Your task to perform on an android device: show emergency info Image 0: 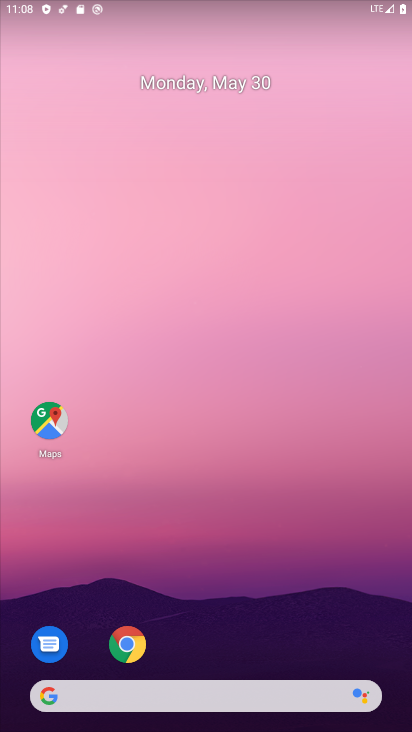
Step 0: drag from (328, 621) to (343, 77)
Your task to perform on an android device: show emergency info Image 1: 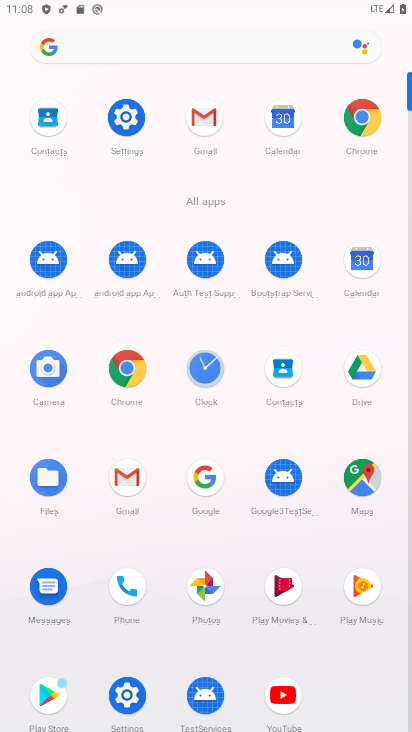
Step 1: click (119, 701)
Your task to perform on an android device: show emergency info Image 2: 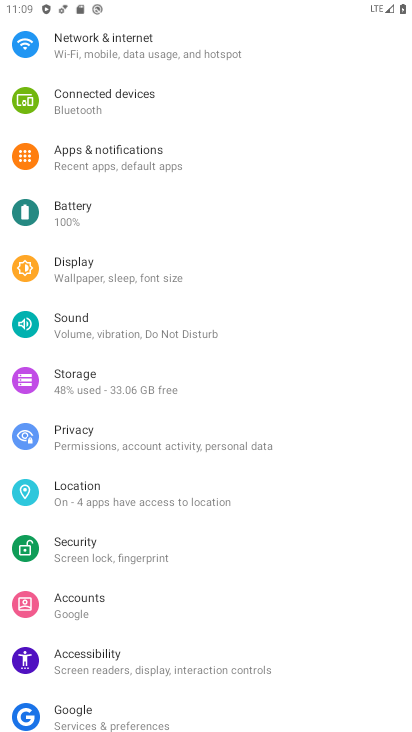
Step 2: drag from (109, 514) to (102, 341)
Your task to perform on an android device: show emergency info Image 3: 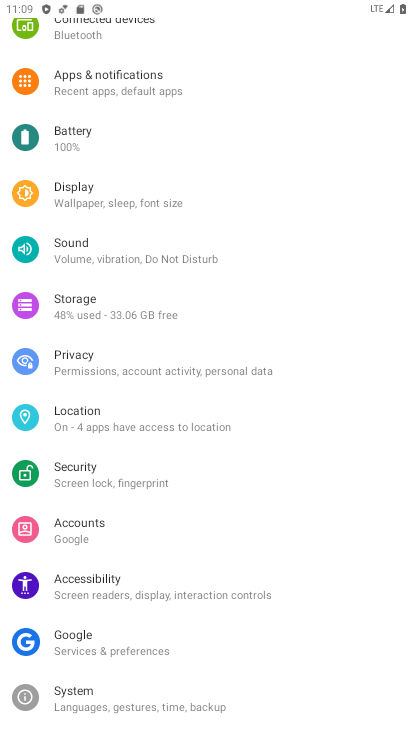
Step 3: drag from (82, 700) to (93, 452)
Your task to perform on an android device: show emergency info Image 4: 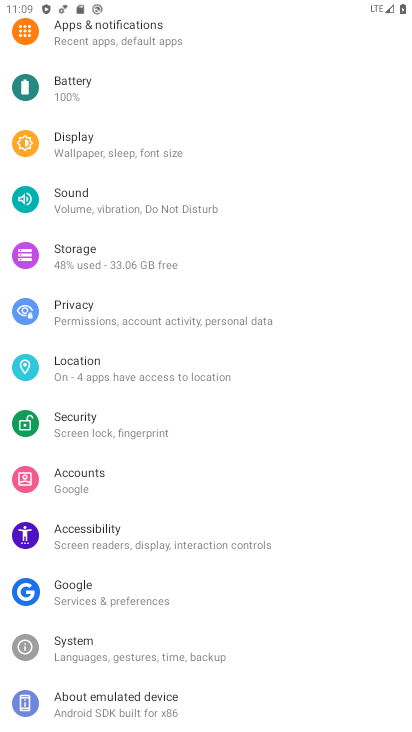
Step 4: click (84, 712)
Your task to perform on an android device: show emergency info Image 5: 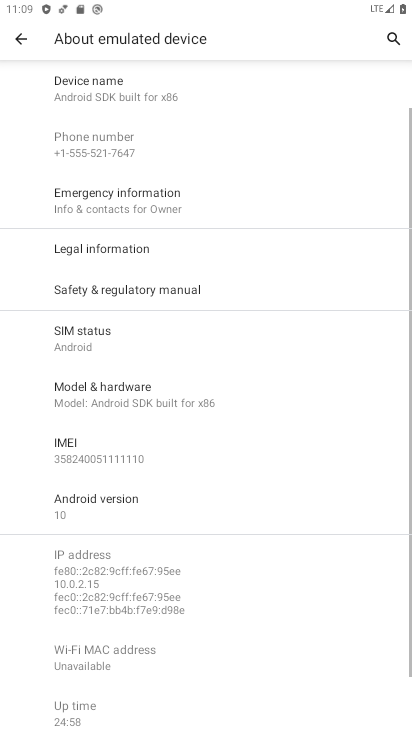
Step 5: click (124, 194)
Your task to perform on an android device: show emergency info Image 6: 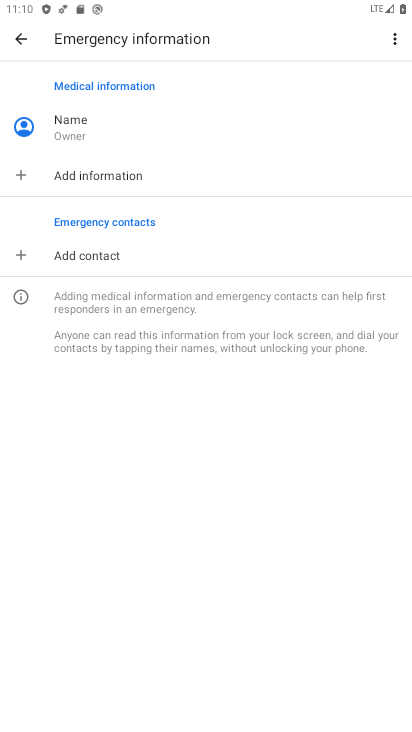
Step 6: task complete